Your task to perform on an android device: add a contact in the contacts app Image 0: 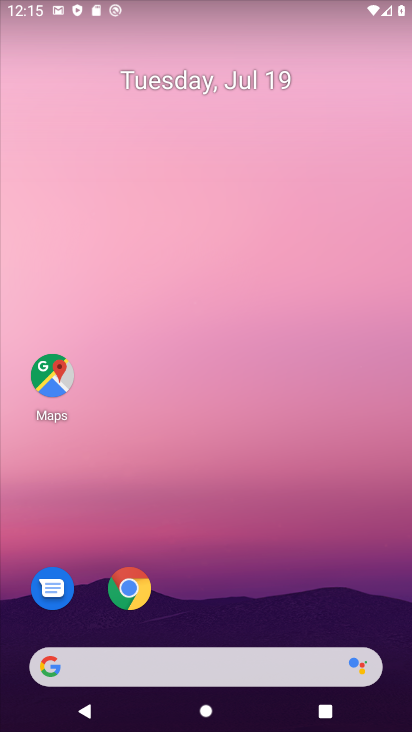
Step 0: drag from (350, 588) to (195, 2)
Your task to perform on an android device: add a contact in the contacts app Image 1: 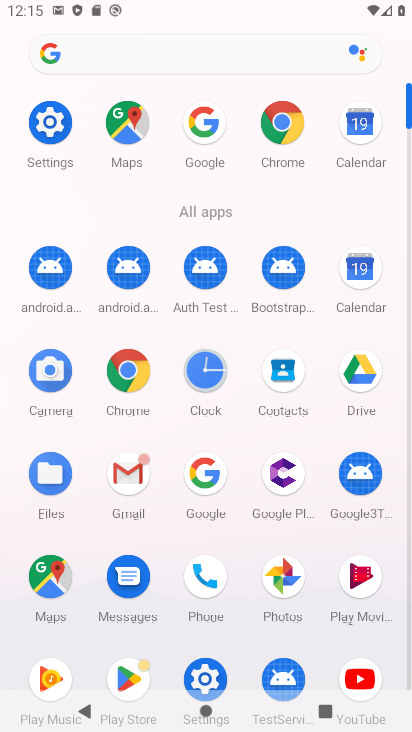
Step 1: click (271, 370)
Your task to perform on an android device: add a contact in the contacts app Image 2: 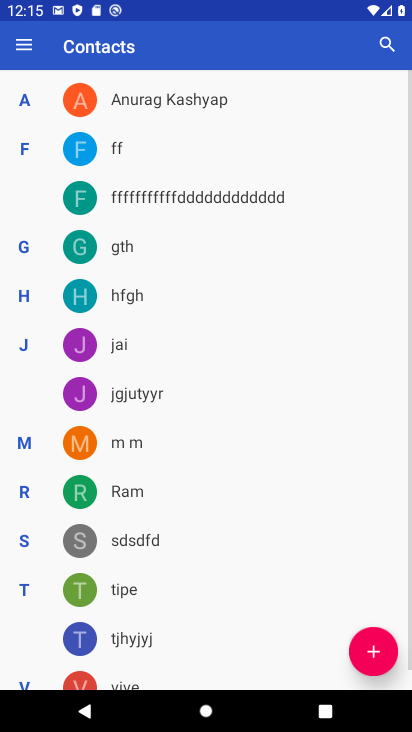
Step 2: click (363, 653)
Your task to perform on an android device: add a contact in the contacts app Image 3: 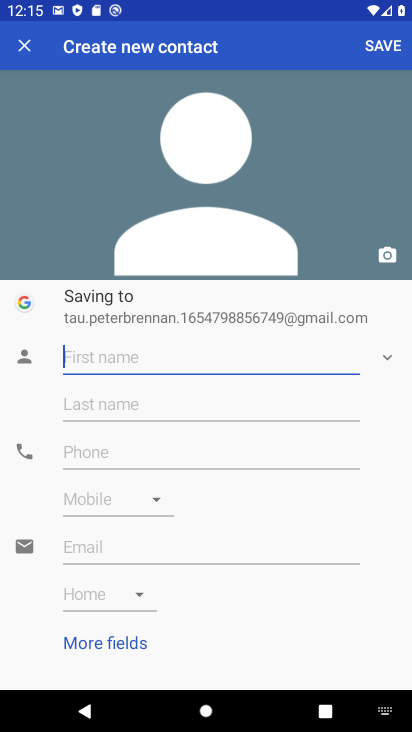
Step 3: type "lokesh"
Your task to perform on an android device: add a contact in the contacts app Image 4: 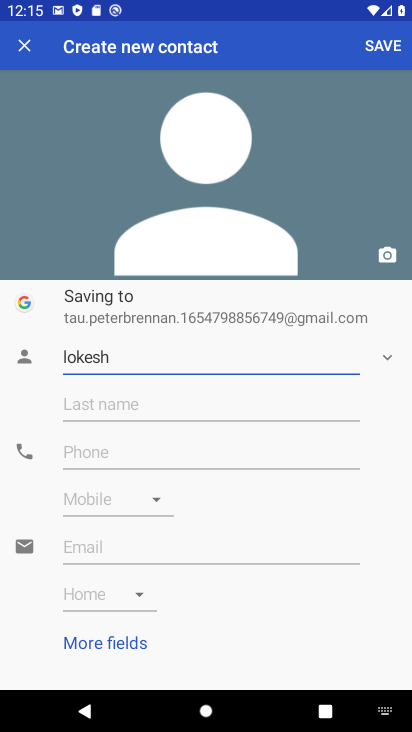
Step 4: click (387, 46)
Your task to perform on an android device: add a contact in the contacts app Image 5: 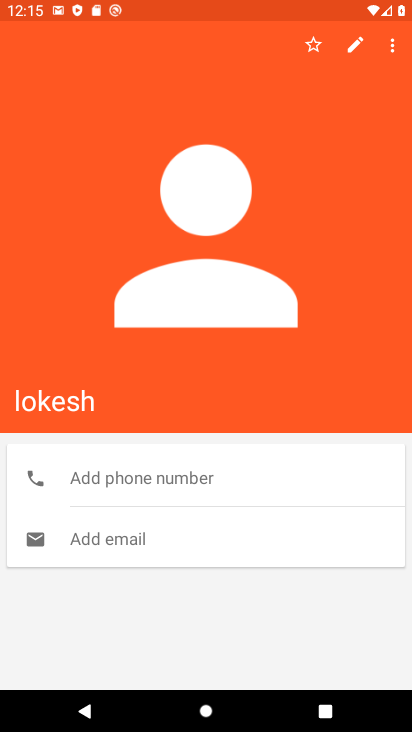
Step 5: task complete